Your task to perform on an android device: Go to notification settings Image 0: 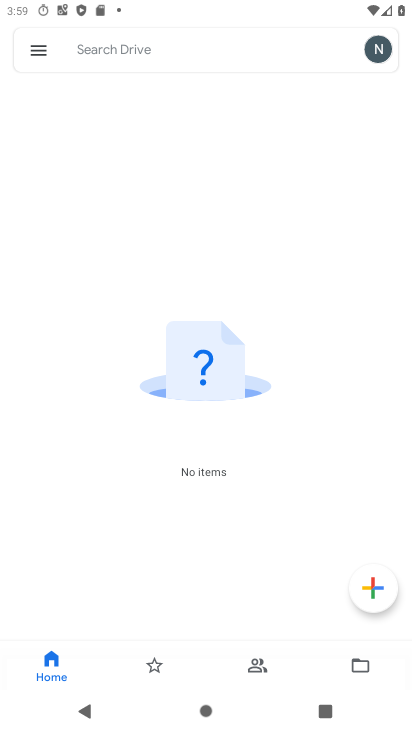
Step 0: press home button
Your task to perform on an android device: Go to notification settings Image 1: 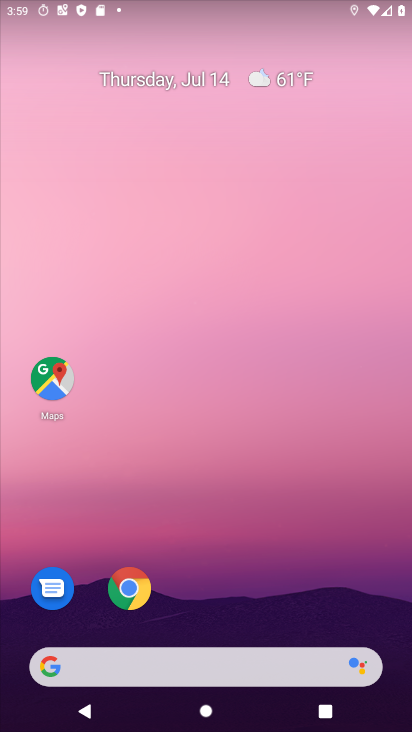
Step 1: drag from (214, 672) to (309, 178)
Your task to perform on an android device: Go to notification settings Image 2: 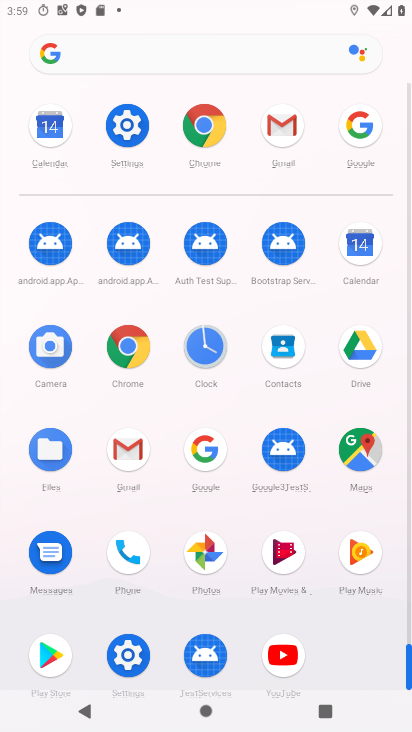
Step 2: click (125, 127)
Your task to perform on an android device: Go to notification settings Image 3: 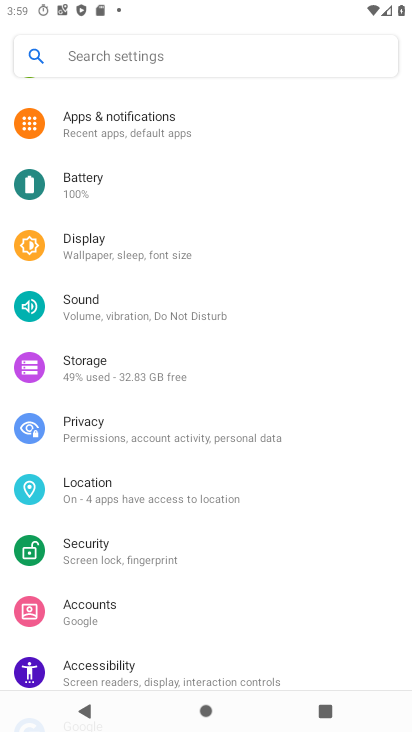
Step 3: click (128, 136)
Your task to perform on an android device: Go to notification settings Image 4: 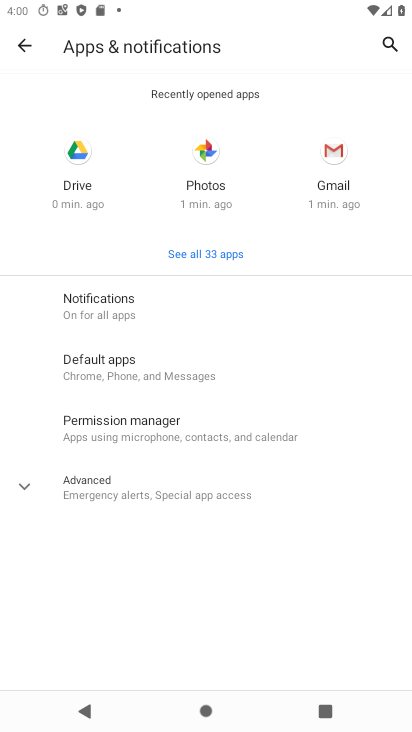
Step 4: click (102, 312)
Your task to perform on an android device: Go to notification settings Image 5: 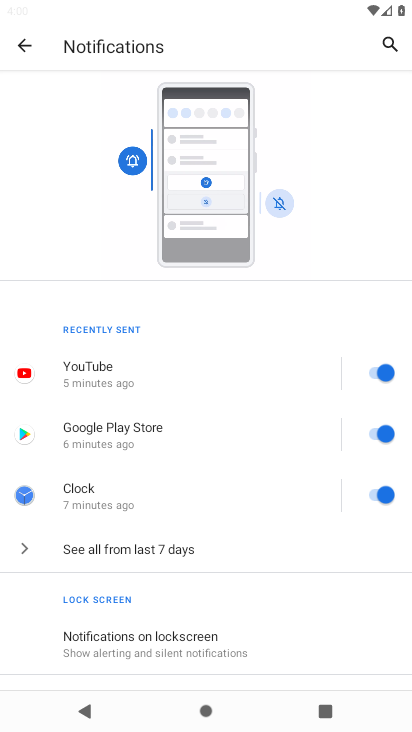
Step 5: drag from (161, 604) to (261, 380)
Your task to perform on an android device: Go to notification settings Image 6: 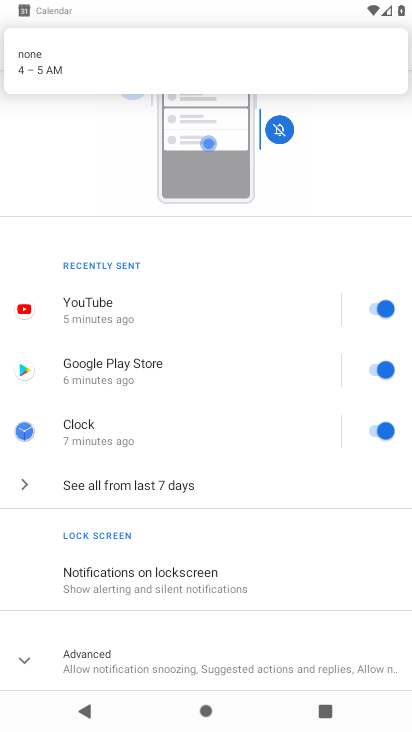
Step 6: click (152, 666)
Your task to perform on an android device: Go to notification settings Image 7: 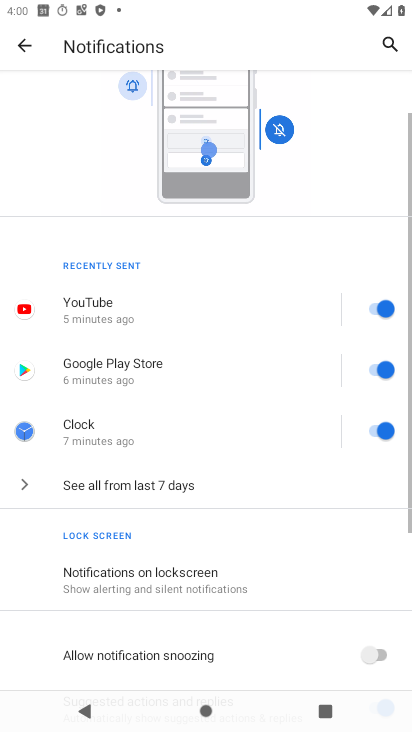
Step 7: task complete